Your task to perform on an android device: Open location settings Image 0: 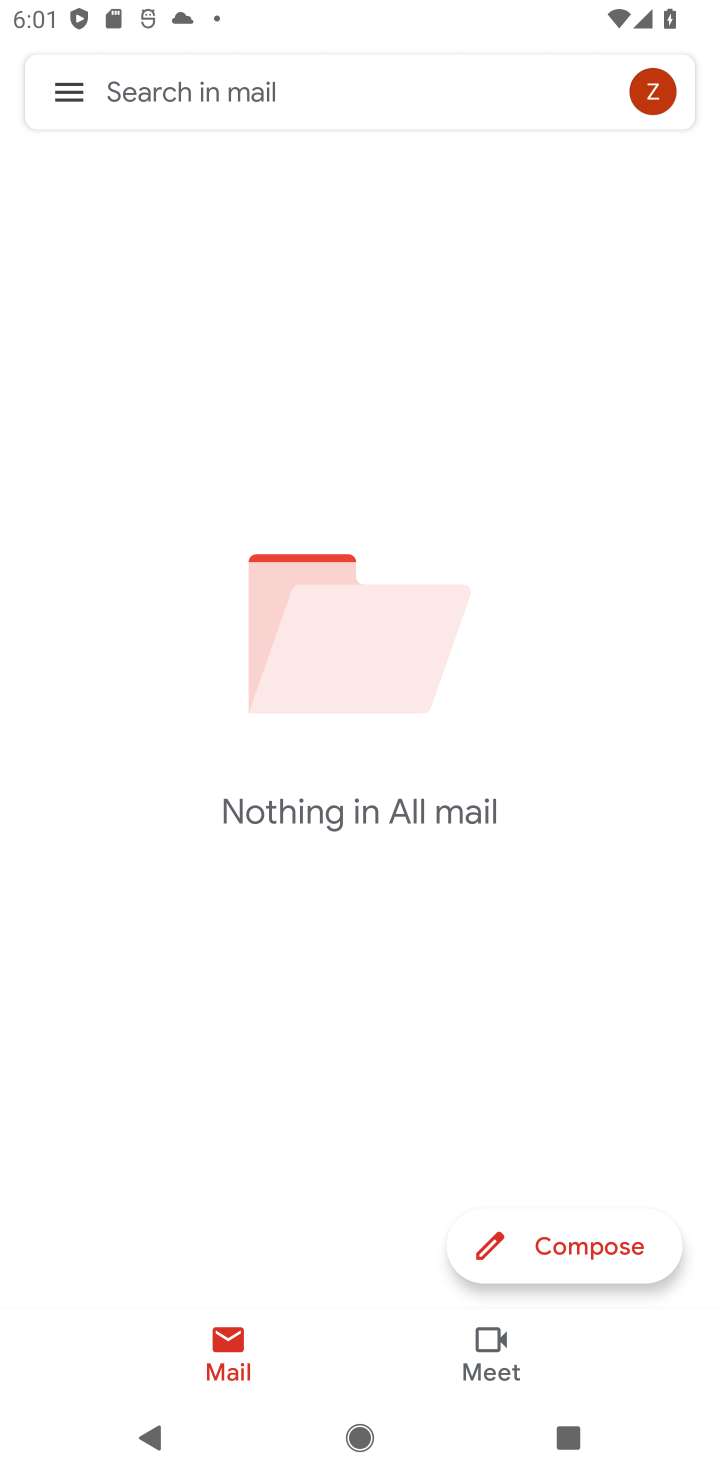
Step 0: press home button
Your task to perform on an android device: Open location settings Image 1: 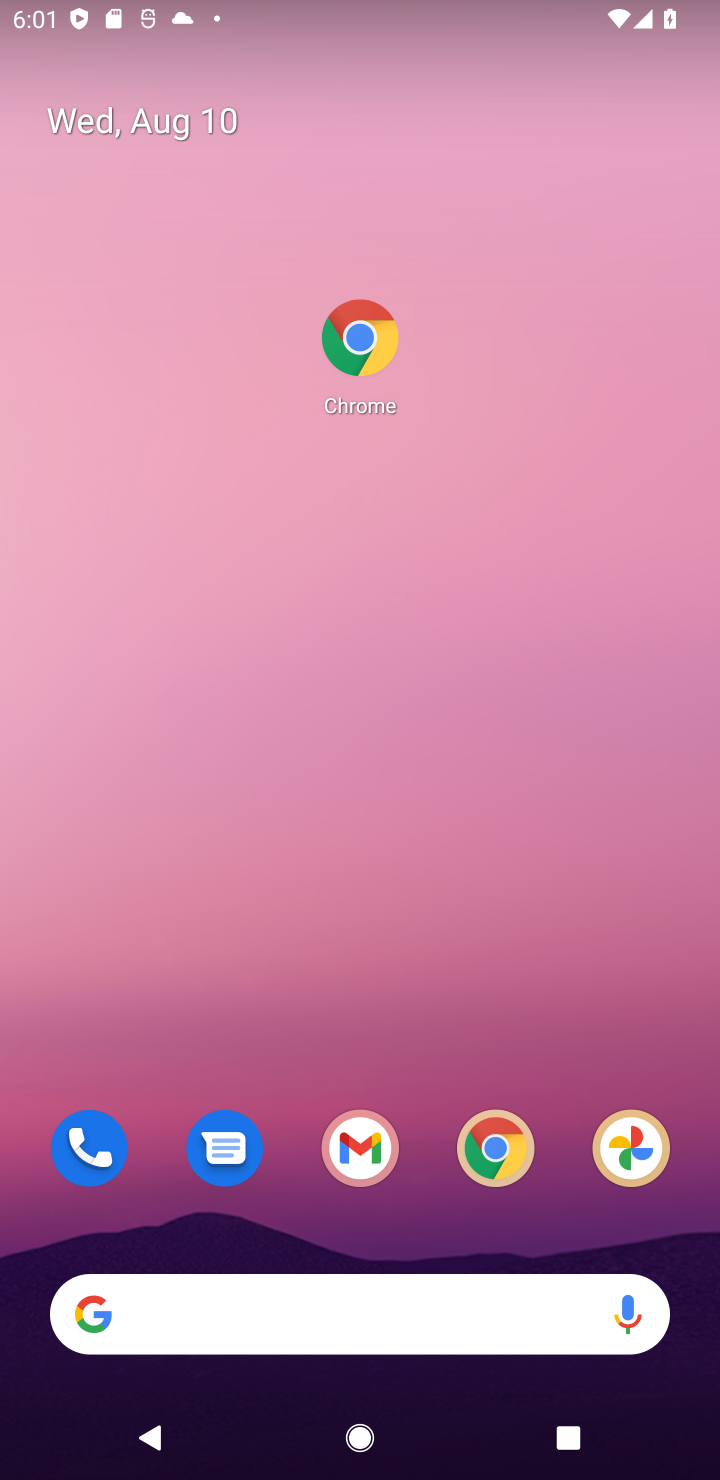
Step 1: drag from (273, 1197) to (289, 417)
Your task to perform on an android device: Open location settings Image 2: 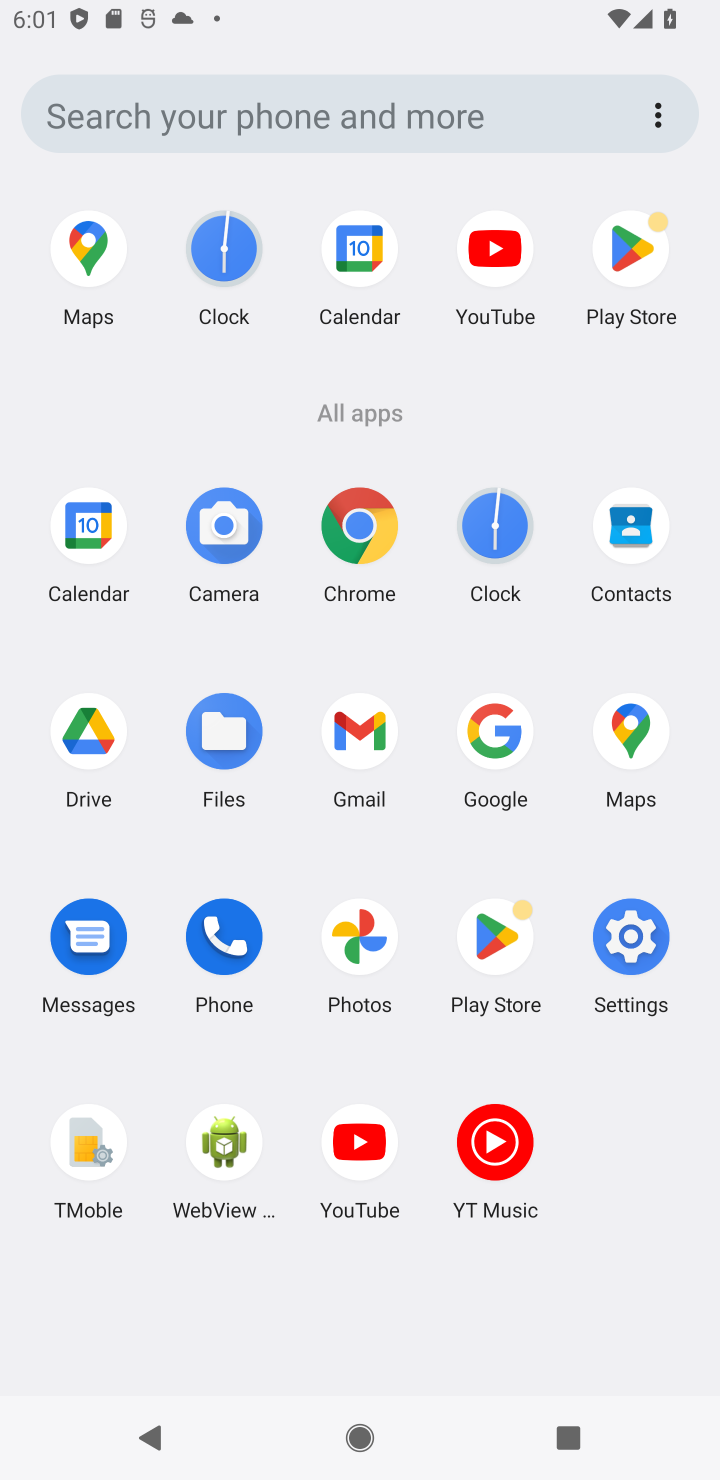
Step 2: click (625, 981)
Your task to perform on an android device: Open location settings Image 3: 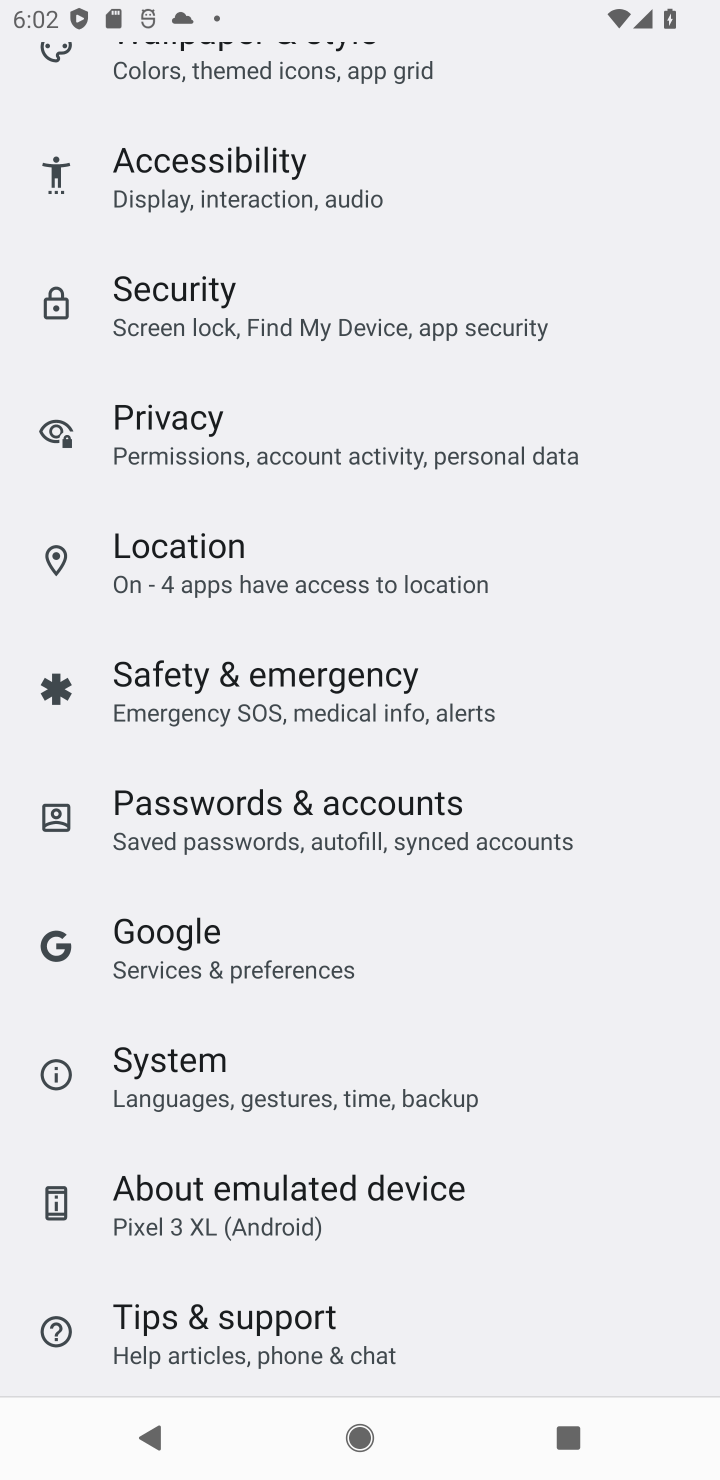
Step 3: click (227, 552)
Your task to perform on an android device: Open location settings Image 4: 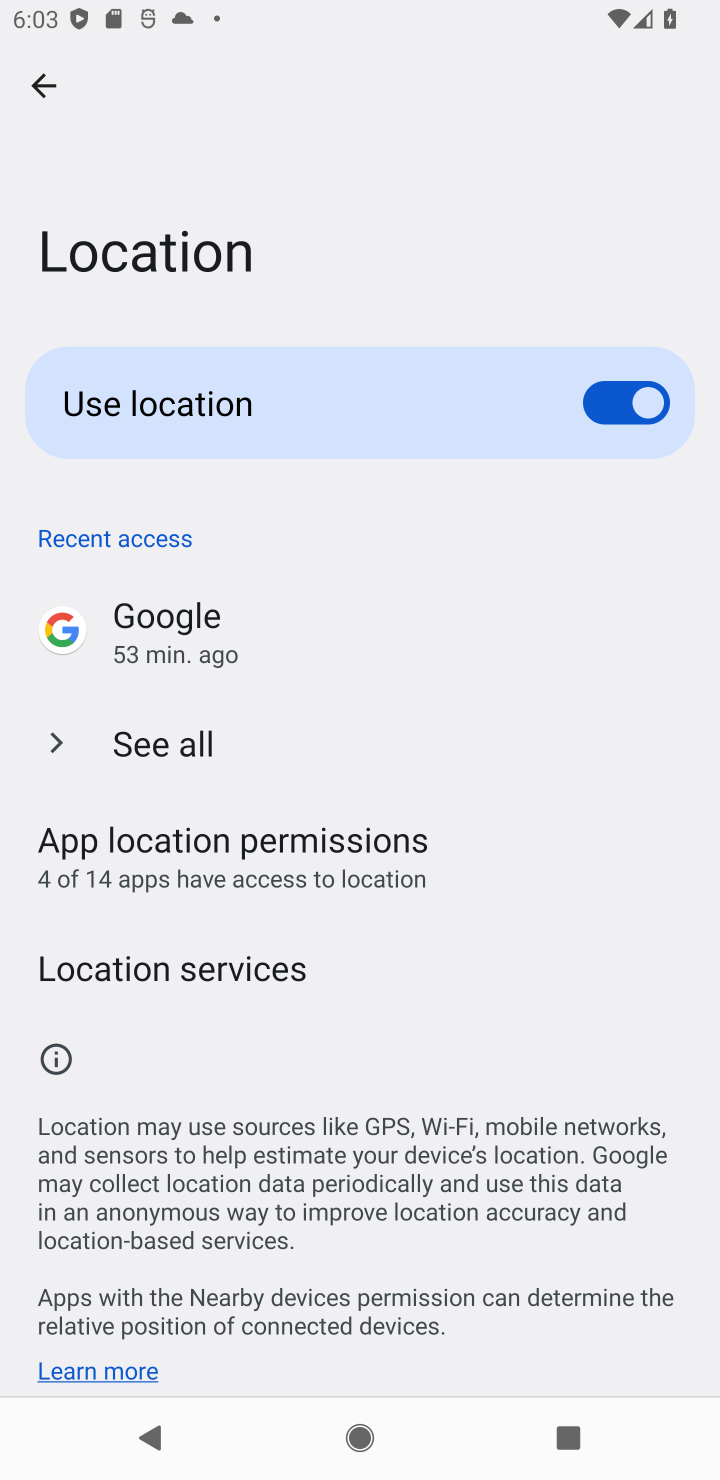
Step 4: task complete